Your task to perform on an android device: Open settings Image 0: 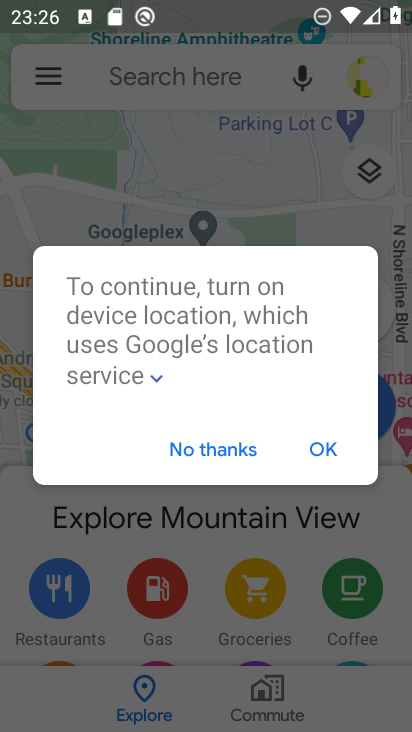
Step 0: press home button
Your task to perform on an android device: Open settings Image 1: 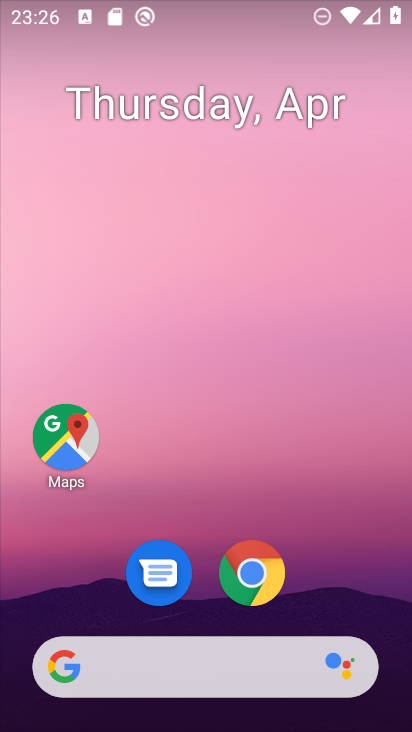
Step 1: drag from (312, 610) to (370, 142)
Your task to perform on an android device: Open settings Image 2: 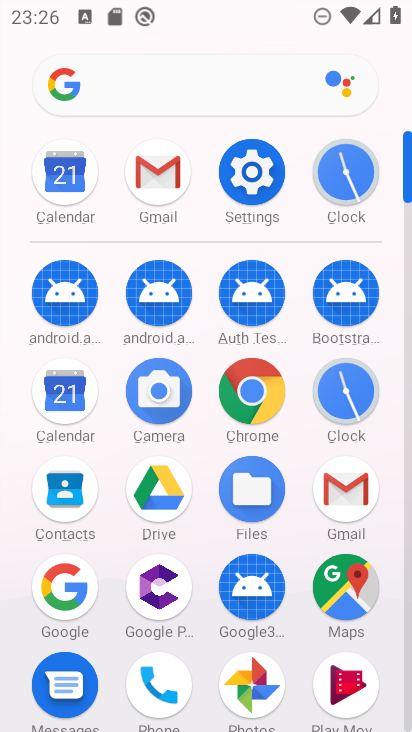
Step 2: click (258, 179)
Your task to perform on an android device: Open settings Image 3: 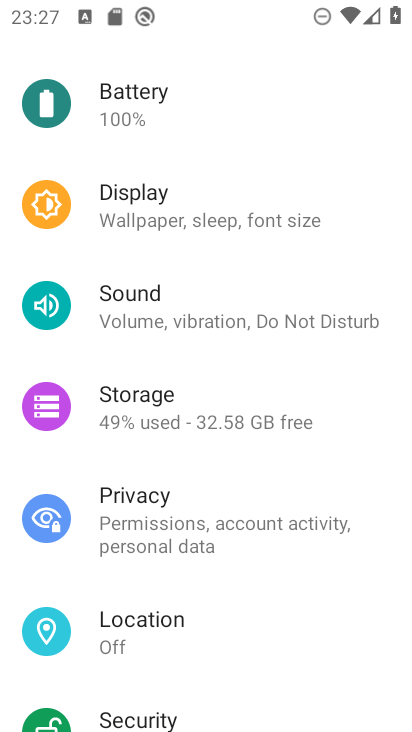
Step 3: task complete